Your task to perform on an android device: Open Google Chrome and open the bookmarks view Image 0: 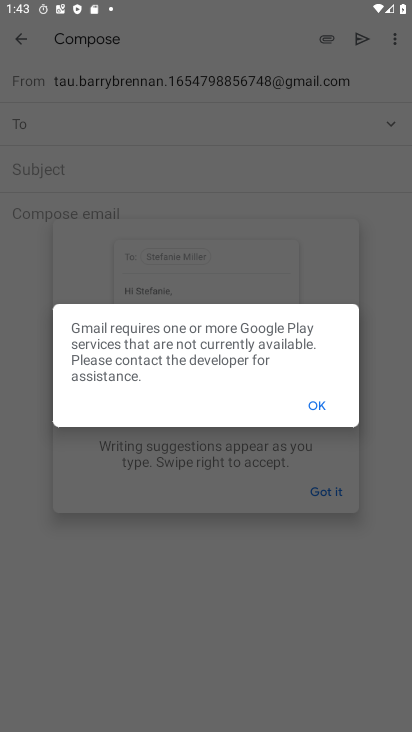
Step 0: press home button
Your task to perform on an android device: Open Google Chrome and open the bookmarks view Image 1: 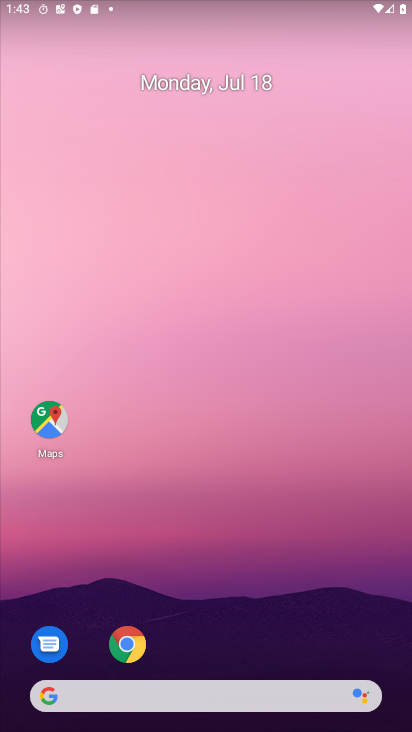
Step 1: click (125, 637)
Your task to perform on an android device: Open Google Chrome and open the bookmarks view Image 2: 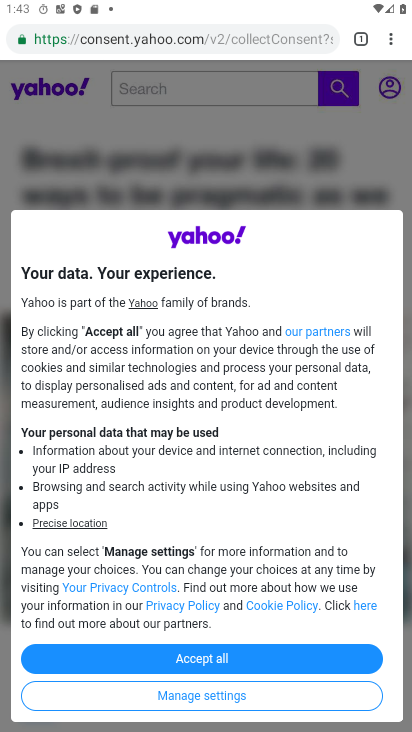
Step 2: click (388, 36)
Your task to perform on an android device: Open Google Chrome and open the bookmarks view Image 3: 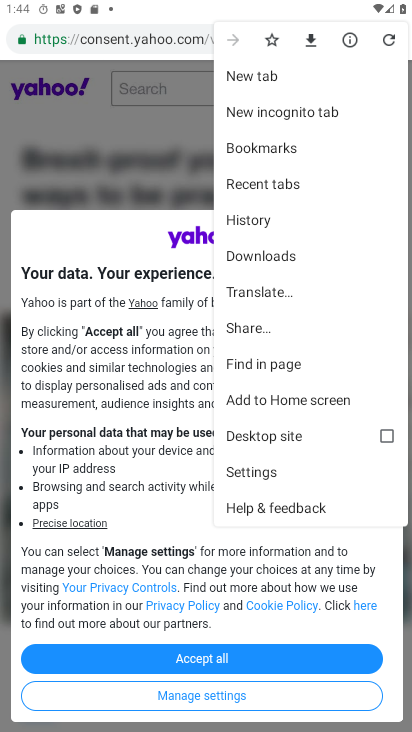
Step 3: click (253, 157)
Your task to perform on an android device: Open Google Chrome and open the bookmarks view Image 4: 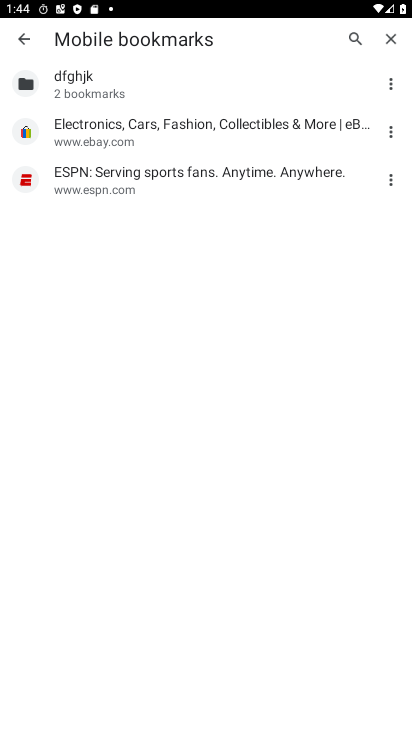
Step 4: task complete